Your task to perform on an android device: What is the news today? Image 0: 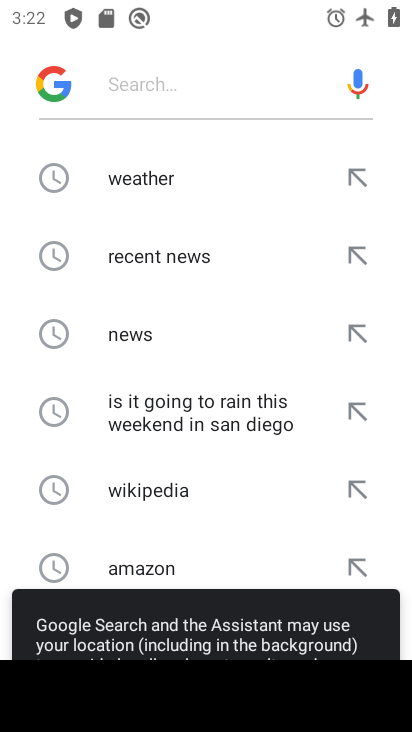
Step 0: press home button
Your task to perform on an android device: What is the news today? Image 1: 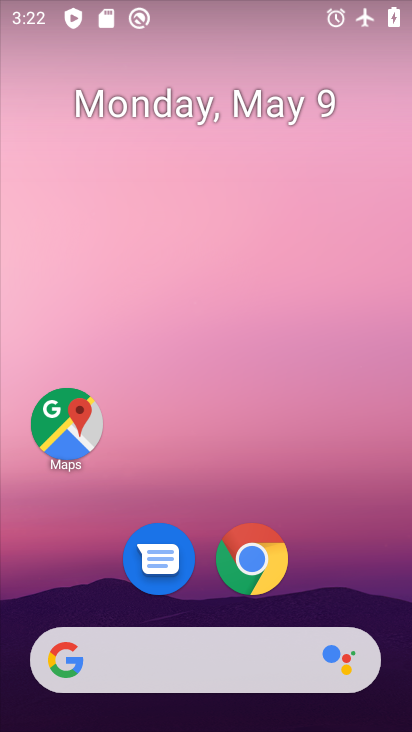
Step 1: task complete